Your task to perform on an android device: turn on location history Image 0: 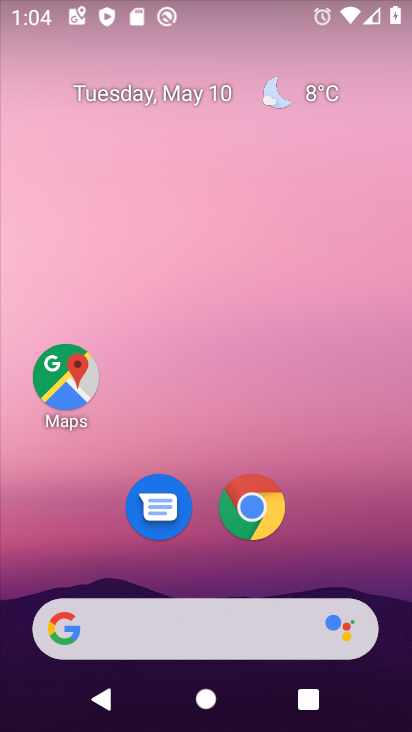
Step 0: drag from (194, 728) to (194, 112)
Your task to perform on an android device: turn on location history Image 1: 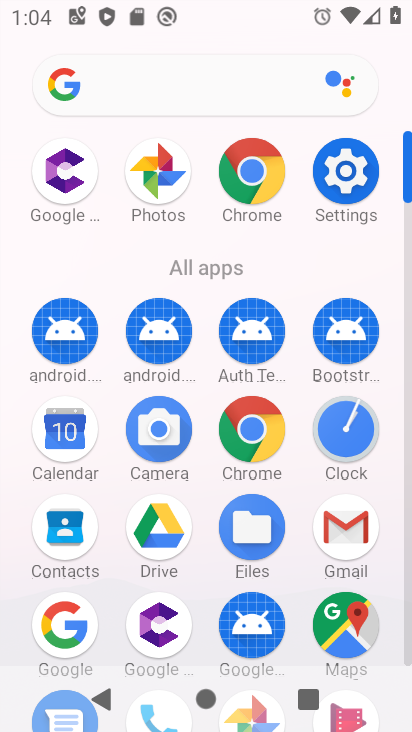
Step 1: click (348, 175)
Your task to perform on an android device: turn on location history Image 2: 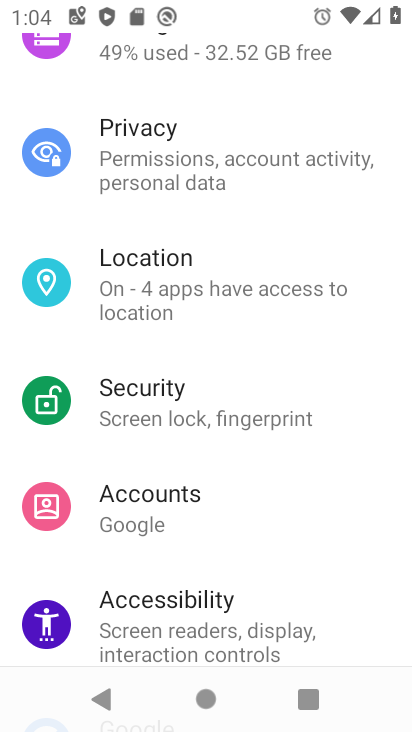
Step 2: click (140, 282)
Your task to perform on an android device: turn on location history Image 3: 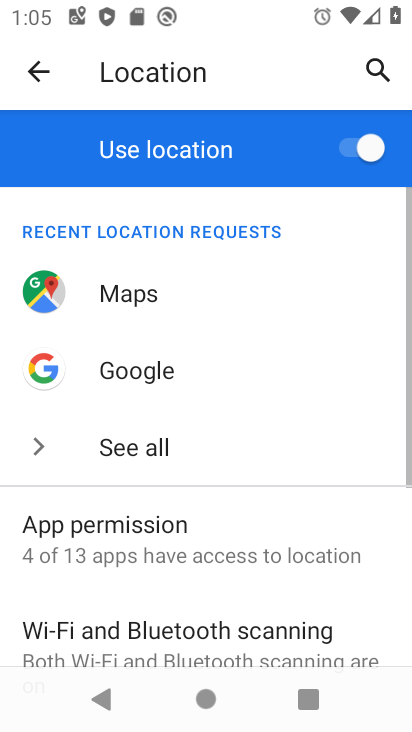
Step 3: drag from (203, 646) to (198, 325)
Your task to perform on an android device: turn on location history Image 4: 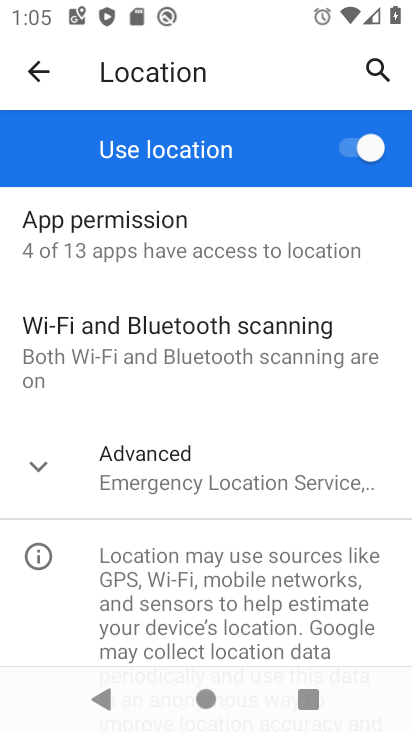
Step 4: click (143, 471)
Your task to perform on an android device: turn on location history Image 5: 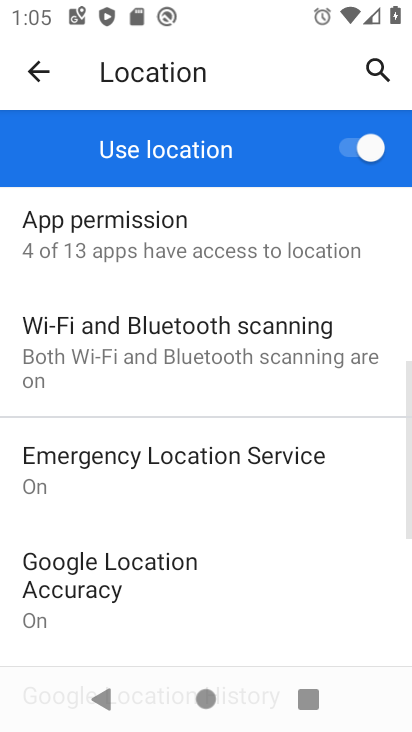
Step 5: drag from (168, 621) to (173, 362)
Your task to perform on an android device: turn on location history Image 6: 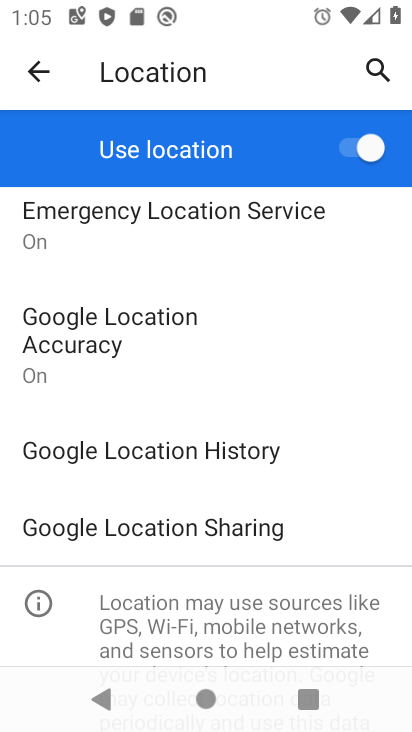
Step 6: click (152, 448)
Your task to perform on an android device: turn on location history Image 7: 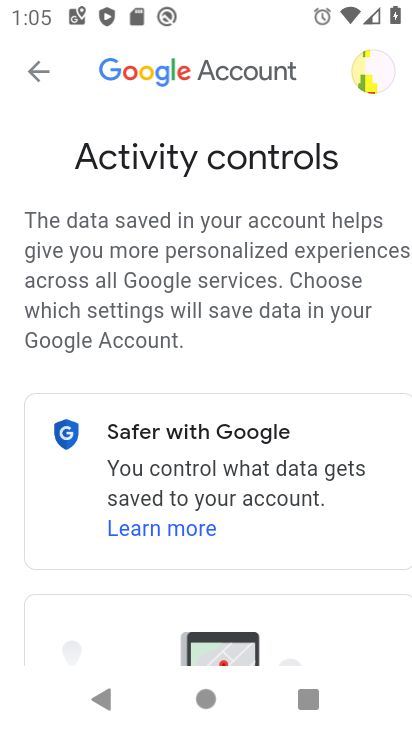
Step 7: task complete